Your task to perform on an android device: What's on my calendar today? Image 0: 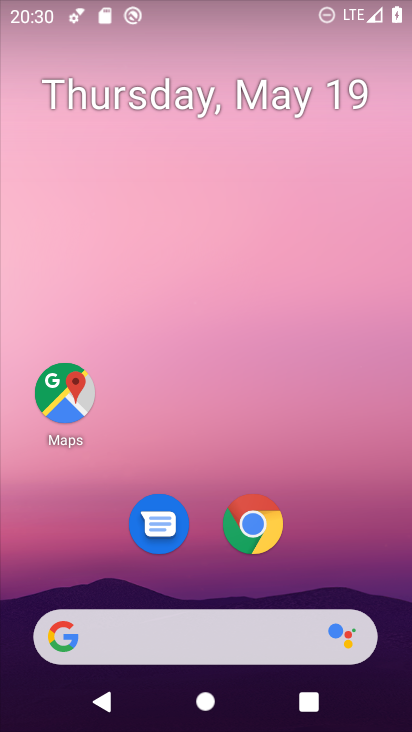
Step 0: drag from (234, 461) to (239, 48)
Your task to perform on an android device: What's on my calendar today? Image 1: 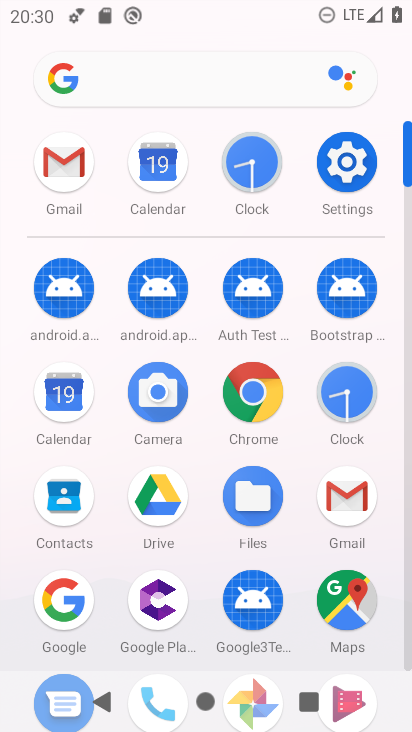
Step 1: click (163, 154)
Your task to perform on an android device: What's on my calendar today? Image 2: 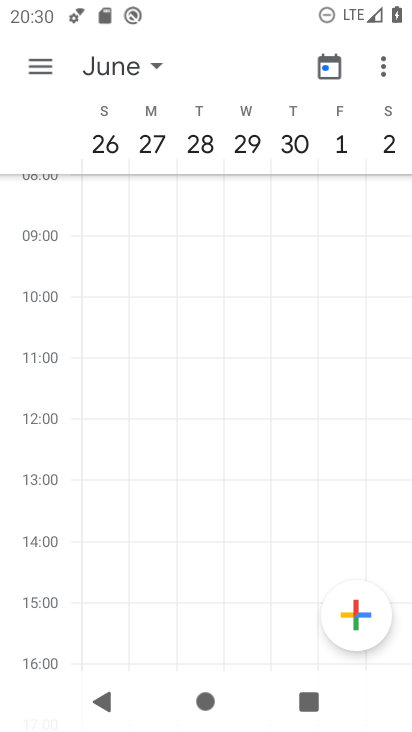
Step 2: click (48, 63)
Your task to perform on an android device: What's on my calendar today? Image 3: 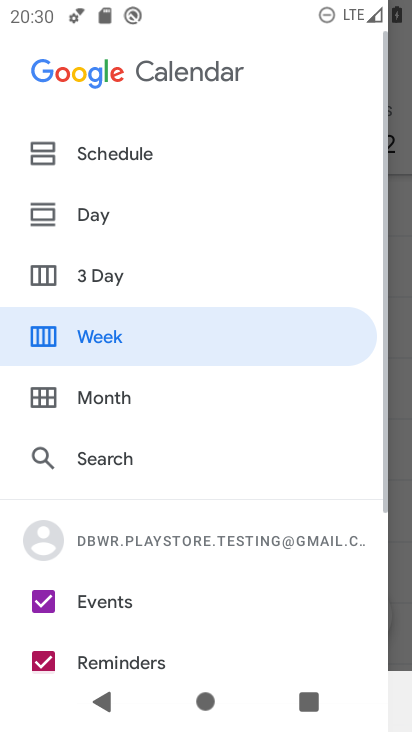
Step 3: click (70, 386)
Your task to perform on an android device: What's on my calendar today? Image 4: 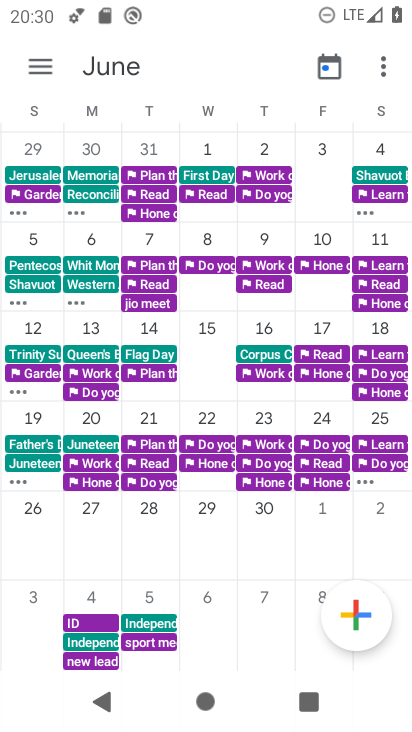
Step 4: drag from (102, 403) to (409, 402)
Your task to perform on an android device: What's on my calendar today? Image 5: 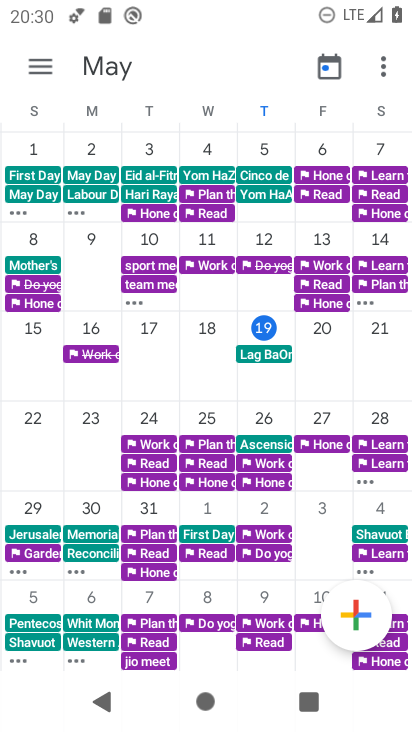
Step 5: click (259, 325)
Your task to perform on an android device: What's on my calendar today? Image 6: 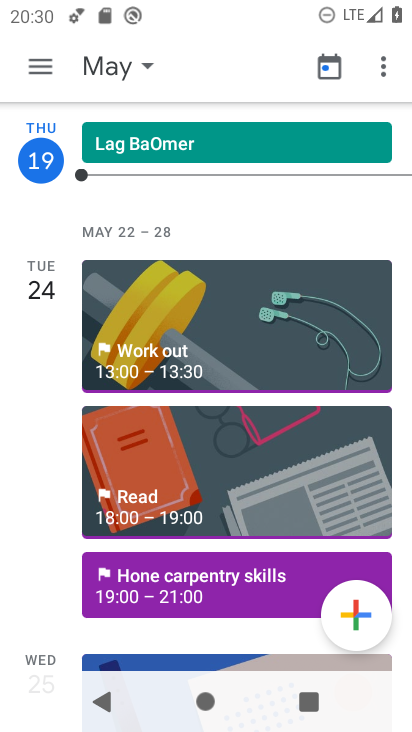
Step 6: task complete